Your task to perform on an android device: Open notification settings Image 0: 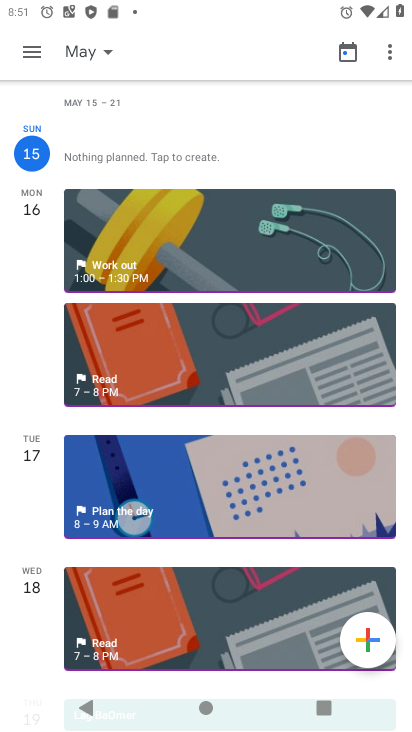
Step 0: press home button
Your task to perform on an android device: Open notification settings Image 1: 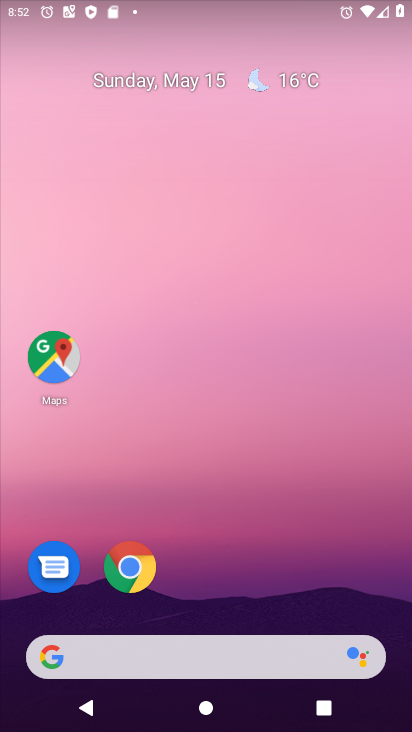
Step 1: drag from (195, 667) to (183, 136)
Your task to perform on an android device: Open notification settings Image 2: 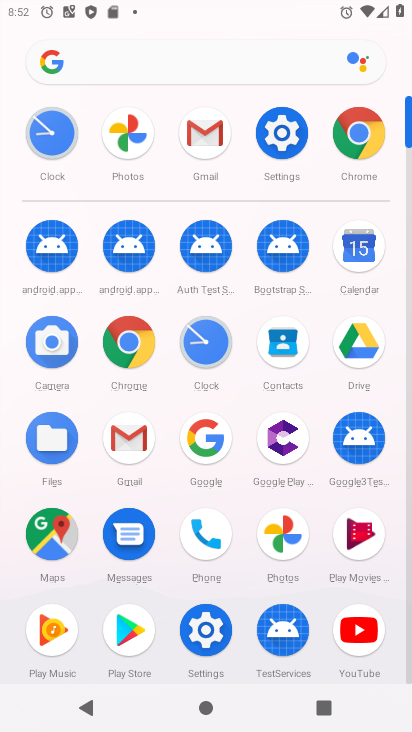
Step 2: click (205, 627)
Your task to perform on an android device: Open notification settings Image 3: 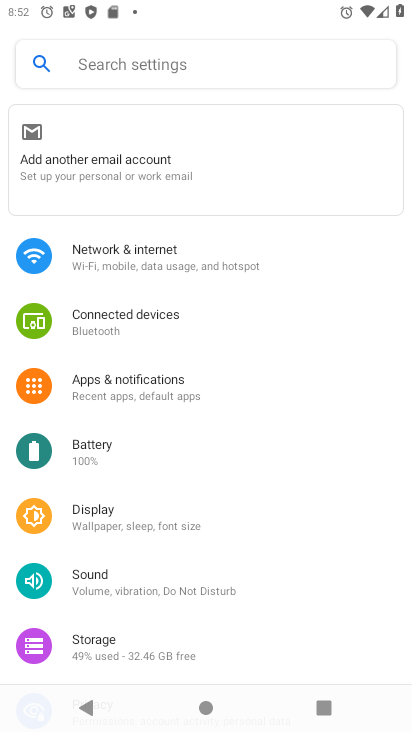
Step 3: click (210, 392)
Your task to perform on an android device: Open notification settings Image 4: 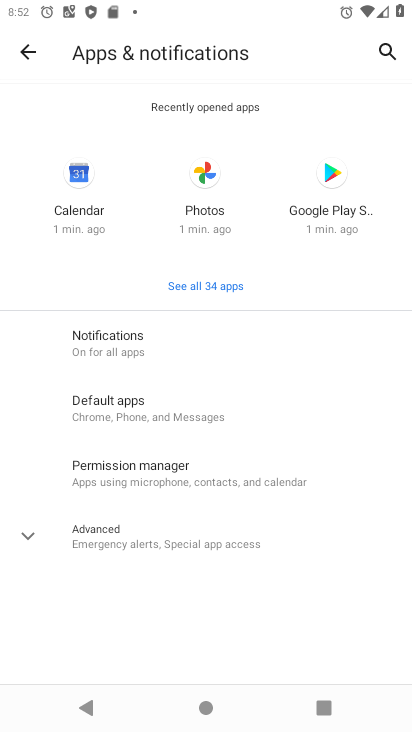
Step 4: task complete